Your task to perform on an android device: turn off location history Image 0: 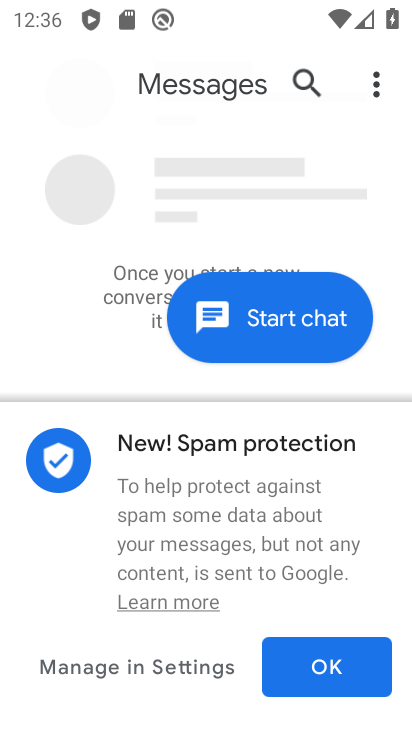
Step 0: press home button
Your task to perform on an android device: turn off location history Image 1: 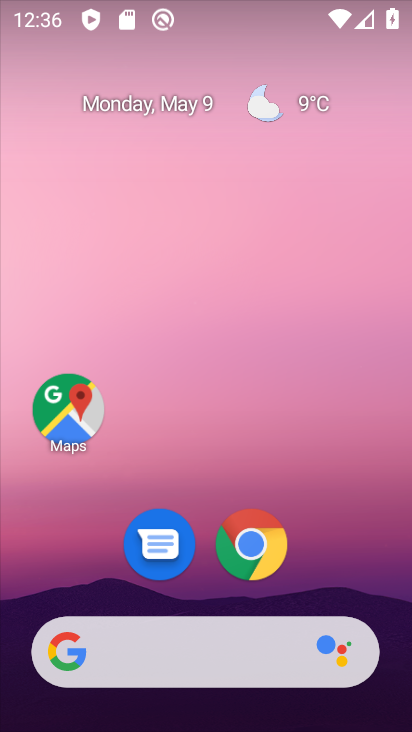
Step 1: drag from (329, 559) to (260, 66)
Your task to perform on an android device: turn off location history Image 2: 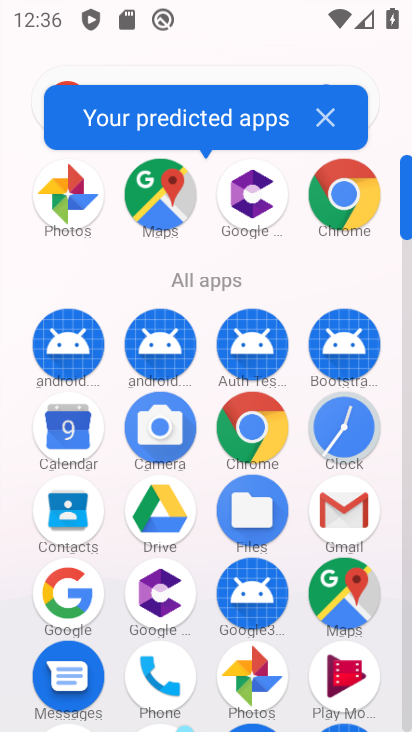
Step 2: drag from (203, 557) to (206, 287)
Your task to perform on an android device: turn off location history Image 3: 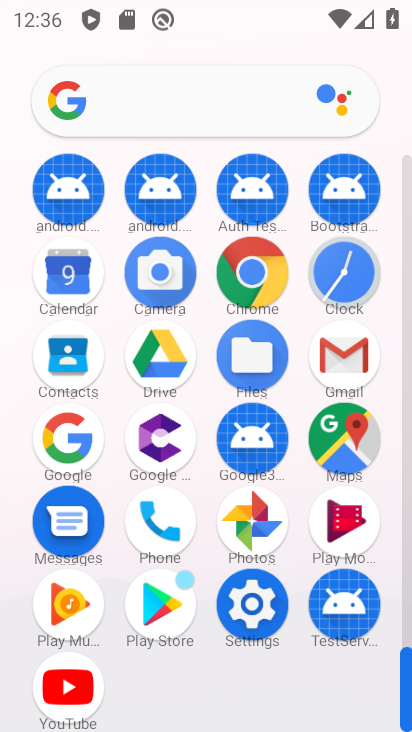
Step 3: click (246, 603)
Your task to perform on an android device: turn off location history Image 4: 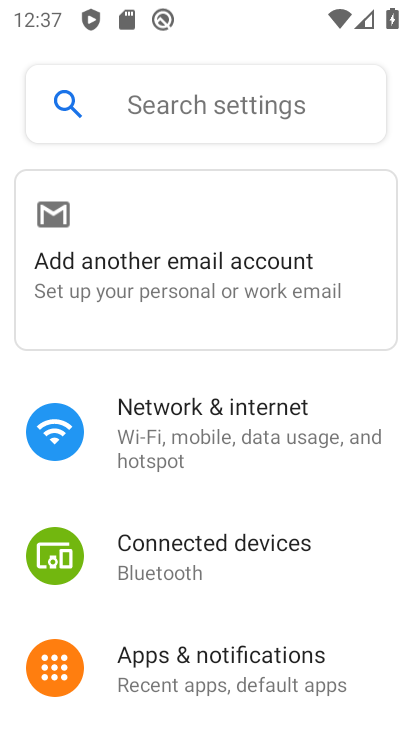
Step 4: drag from (224, 627) to (205, 165)
Your task to perform on an android device: turn off location history Image 5: 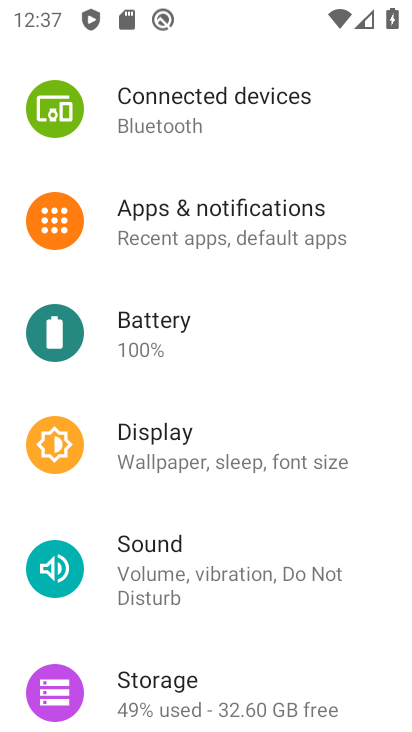
Step 5: drag from (217, 653) to (194, 285)
Your task to perform on an android device: turn off location history Image 6: 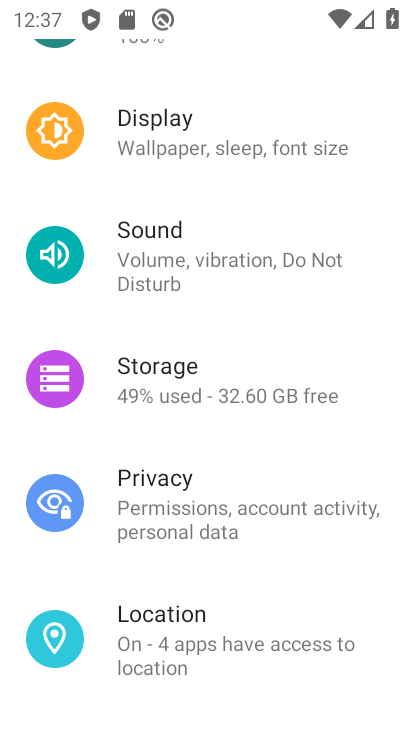
Step 6: click (193, 636)
Your task to perform on an android device: turn off location history Image 7: 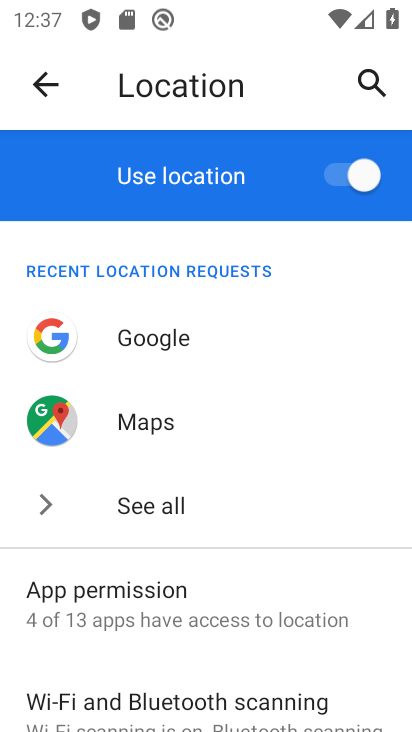
Step 7: drag from (212, 686) to (177, 222)
Your task to perform on an android device: turn off location history Image 8: 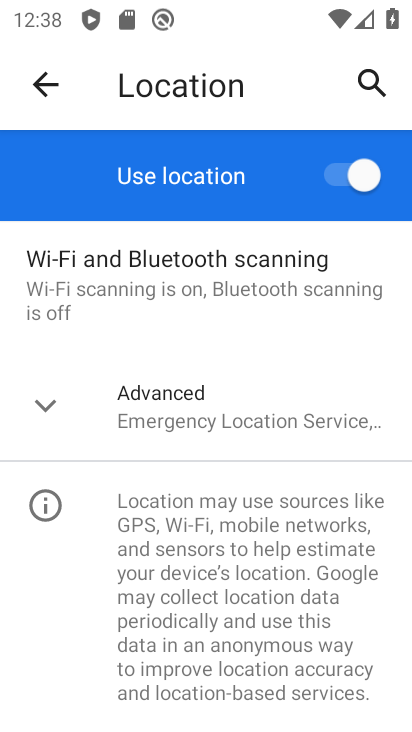
Step 8: click (181, 397)
Your task to perform on an android device: turn off location history Image 9: 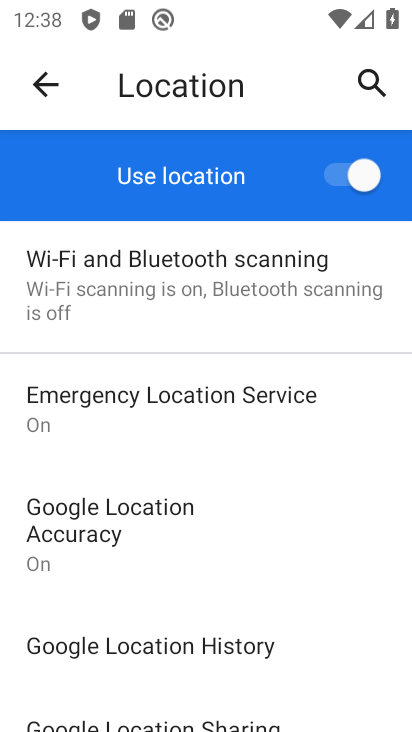
Step 9: click (142, 635)
Your task to perform on an android device: turn off location history Image 10: 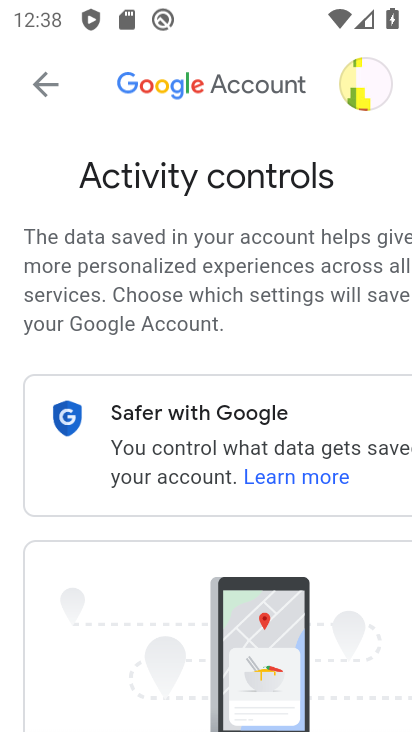
Step 10: drag from (214, 566) to (190, 202)
Your task to perform on an android device: turn off location history Image 11: 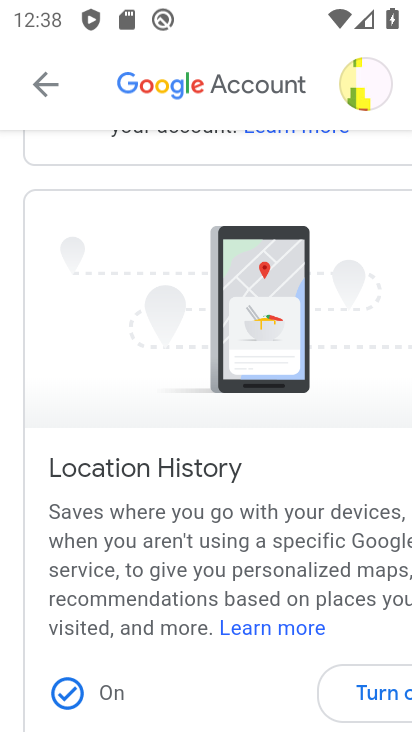
Step 11: drag from (218, 625) to (208, 380)
Your task to perform on an android device: turn off location history Image 12: 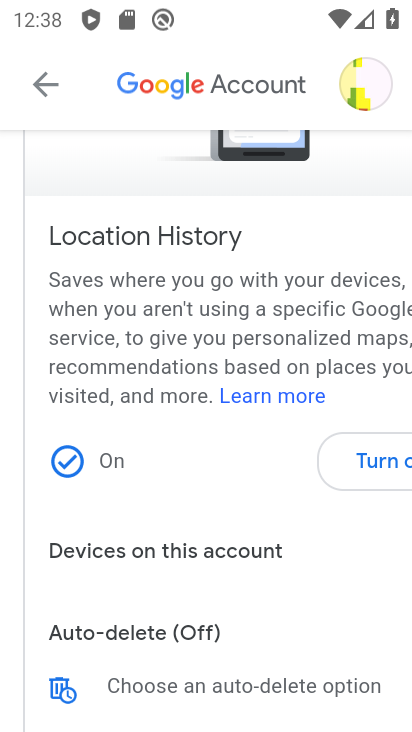
Step 12: click (347, 446)
Your task to perform on an android device: turn off location history Image 13: 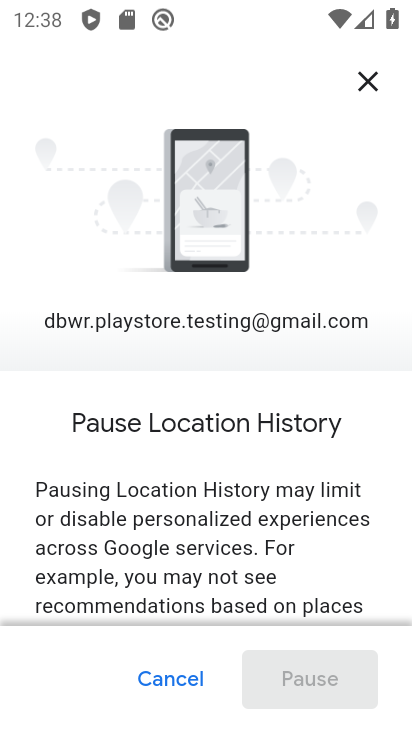
Step 13: drag from (283, 575) to (294, 50)
Your task to perform on an android device: turn off location history Image 14: 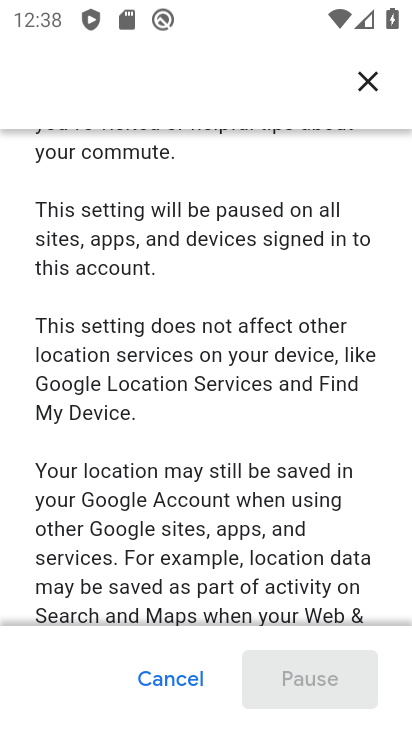
Step 14: drag from (252, 536) to (246, 20)
Your task to perform on an android device: turn off location history Image 15: 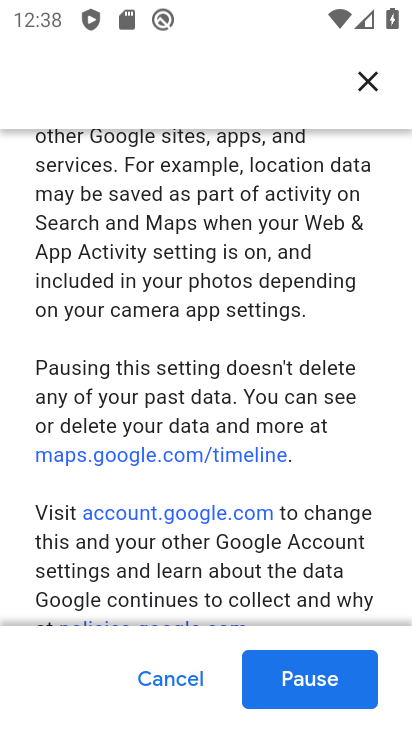
Step 15: drag from (292, 676) to (287, 15)
Your task to perform on an android device: turn off location history Image 16: 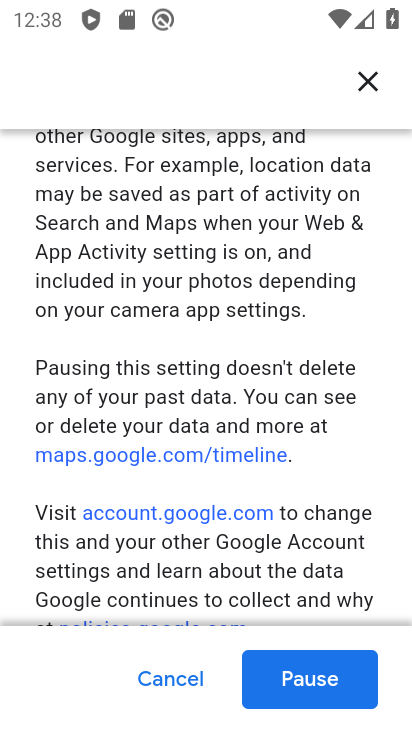
Step 16: click (315, 700)
Your task to perform on an android device: turn off location history Image 17: 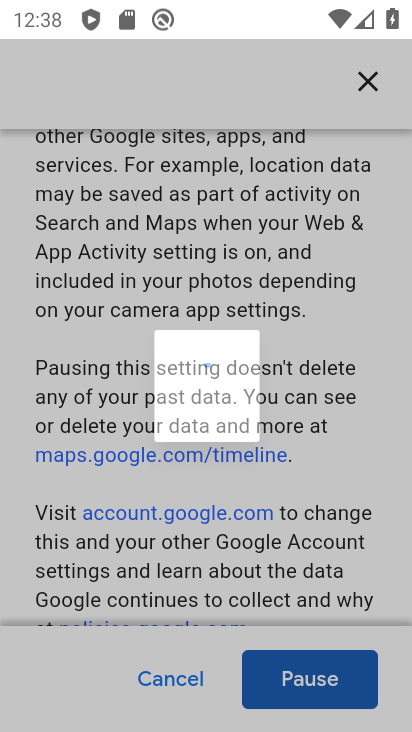
Step 17: click (316, 678)
Your task to perform on an android device: turn off location history Image 18: 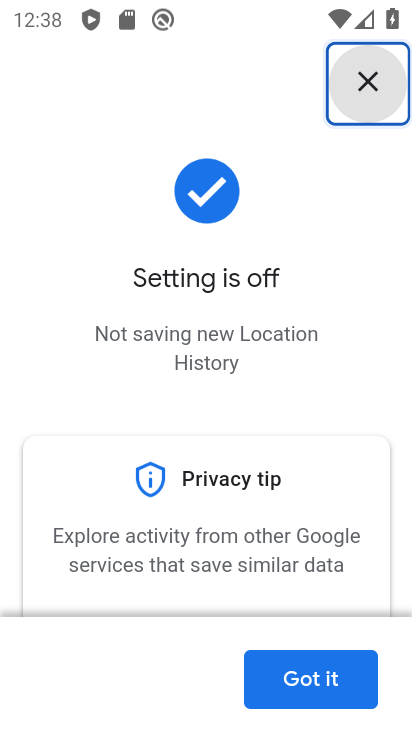
Step 18: click (313, 669)
Your task to perform on an android device: turn off location history Image 19: 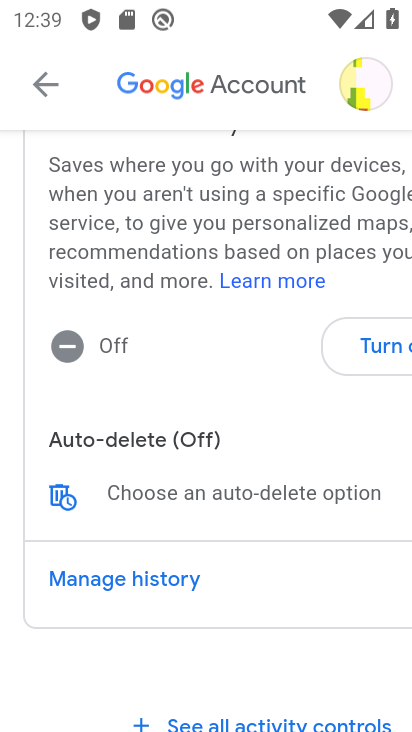
Step 19: task complete